Your task to perform on an android device: Open calendar and show me the first week of next month Image 0: 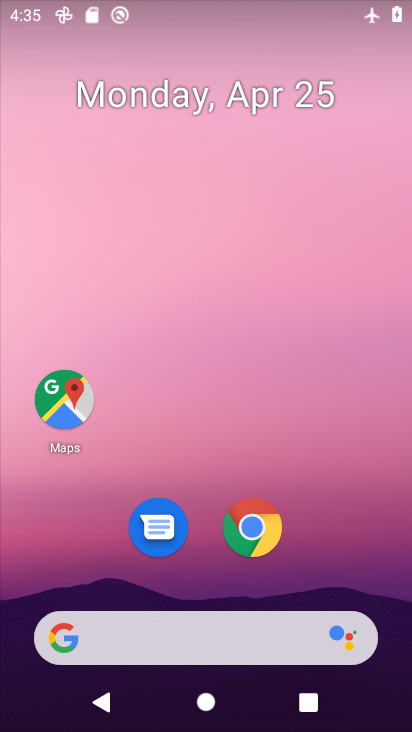
Step 0: drag from (394, 607) to (363, 219)
Your task to perform on an android device: Open calendar and show me the first week of next month Image 1: 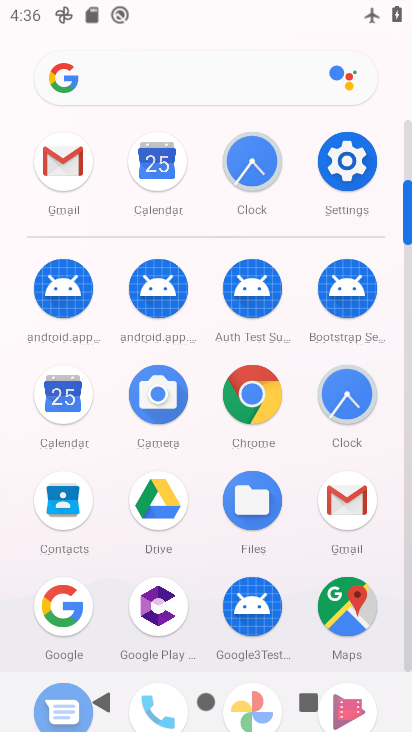
Step 1: click (407, 651)
Your task to perform on an android device: Open calendar and show me the first week of next month Image 2: 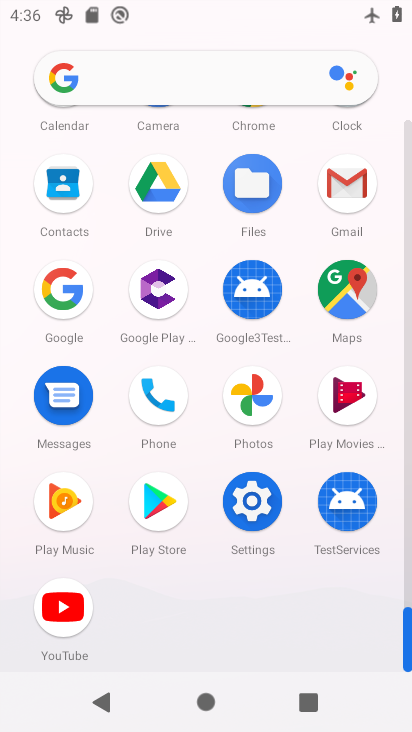
Step 2: click (407, 150)
Your task to perform on an android device: Open calendar and show me the first week of next month Image 3: 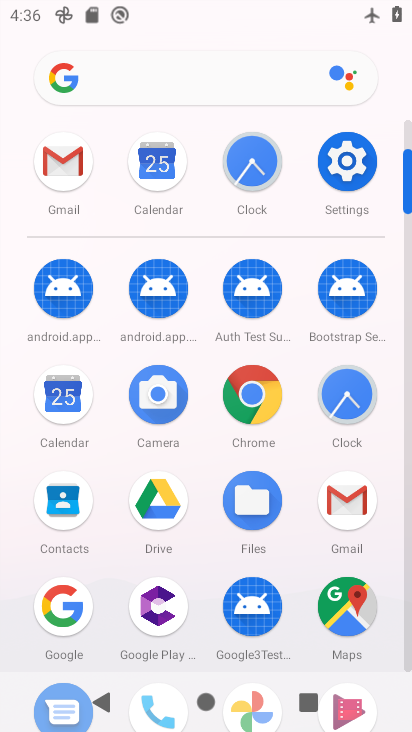
Step 3: click (61, 393)
Your task to perform on an android device: Open calendar and show me the first week of next month Image 4: 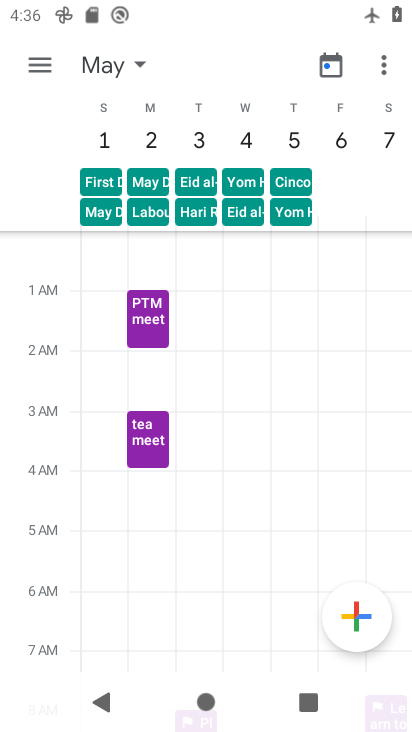
Step 4: task complete